Your task to perform on an android device: turn on sleep mode Image 0: 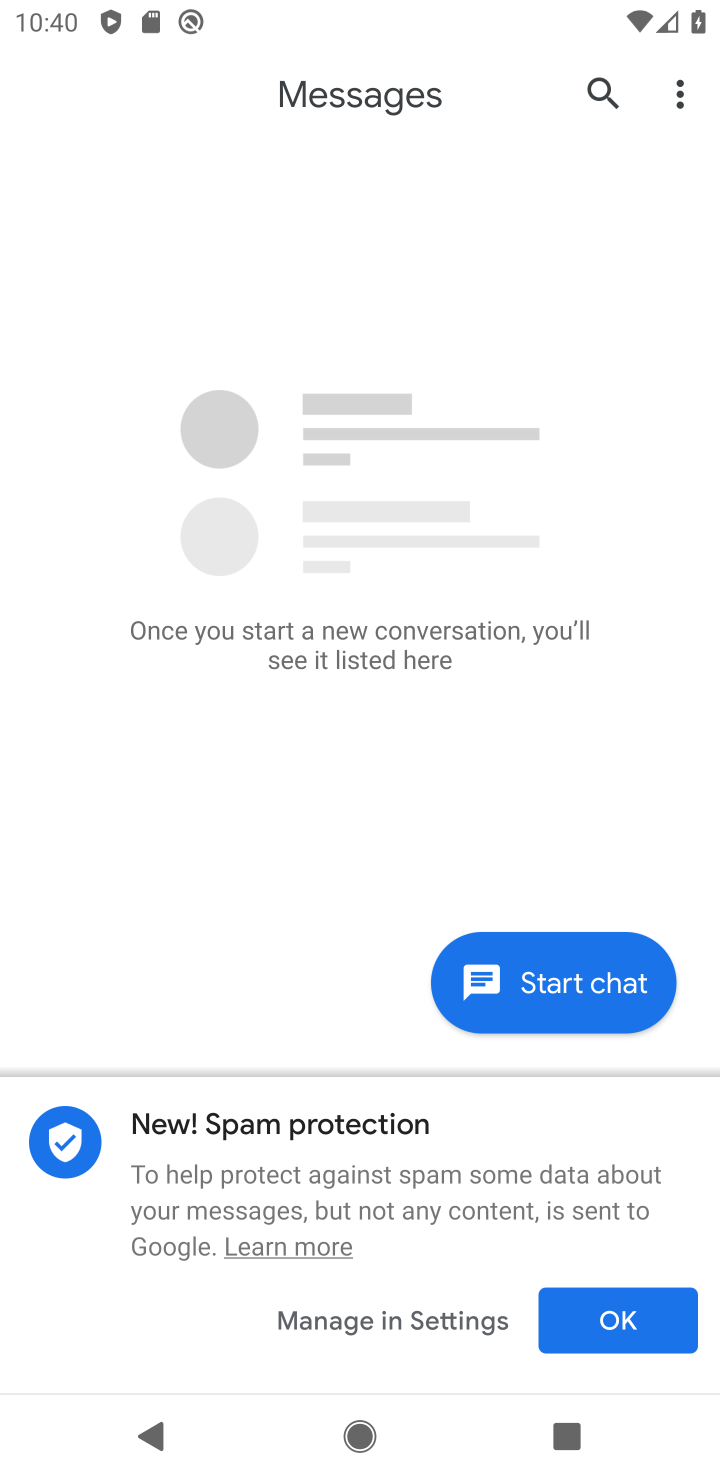
Step 0: task complete